Your task to perform on an android device: see tabs open on other devices in the chrome app Image 0: 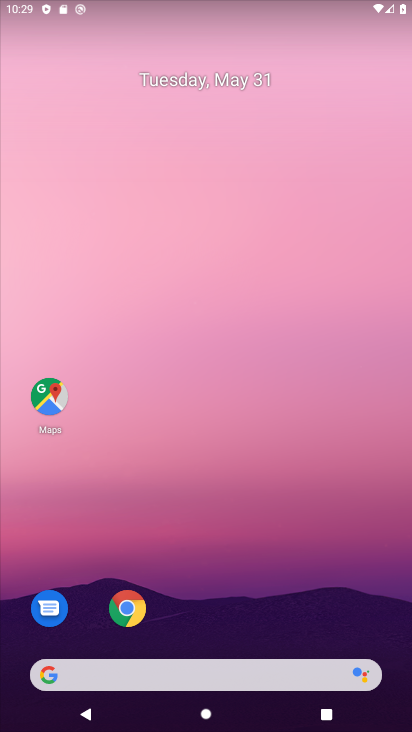
Step 0: drag from (343, 604) to (296, 168)
Your task to perform on an android device: see tabs open on other devices in the chrome app Image 1: 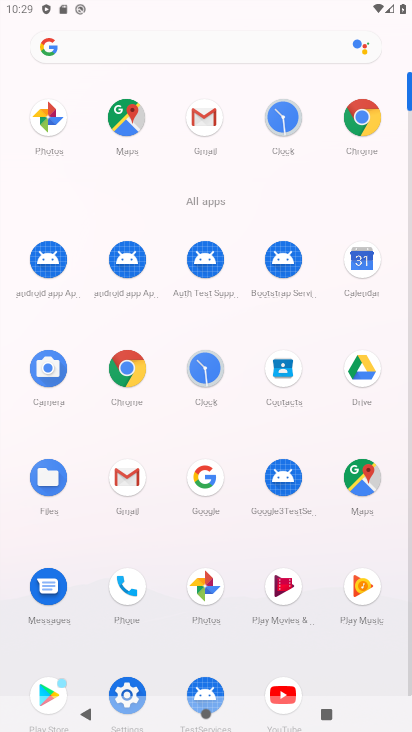
Step 1: click (118, 383)
Your task to perform on an android device: see tabs open on other devices in the chrome app Image 2: 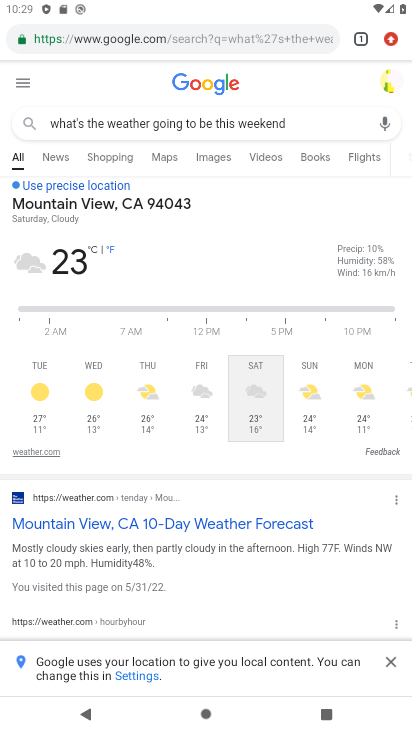
Step 2: click (361, 37)
Your task to perform on an android device: see tabs open on other devices in the chrome app Image 3: 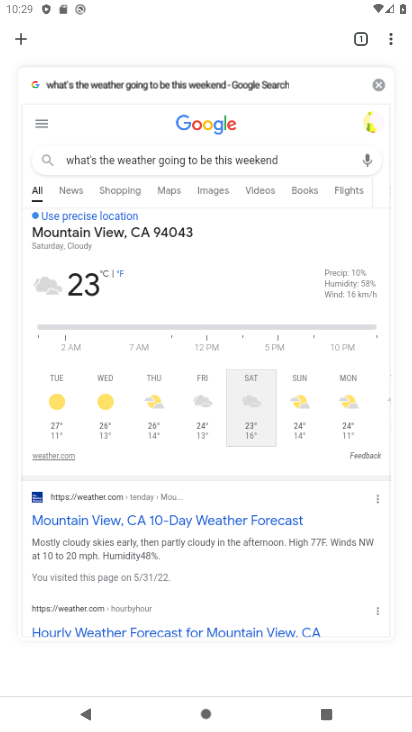
Step 3: click (4, 31)
Your task to perform on an android device: see tabs open on other devices in the chrome app Image 4: 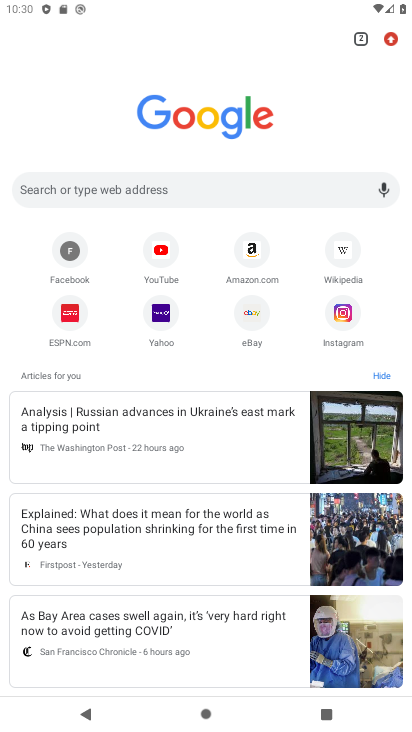
Step 4: click (370, 32)
Your task to perform on an android device: see tabs open on other devices in the chrome app Image 5: 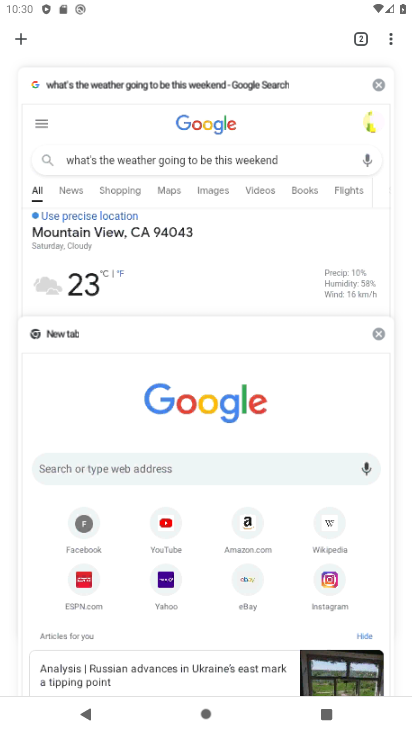
Step 5: task complete